Your task to perform on an android device: Go to calendar. Show me events next week Image 0: 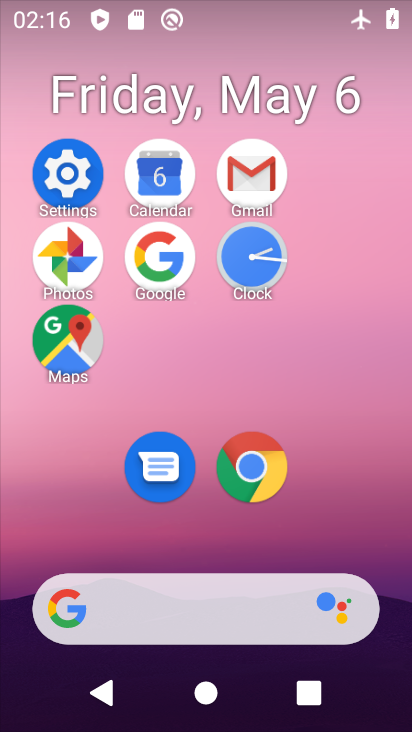
Step 0: drag from (347, 527) to (348, 124)
Your task to perform on an android device: Go to calendar. Show me events next week Image 1: 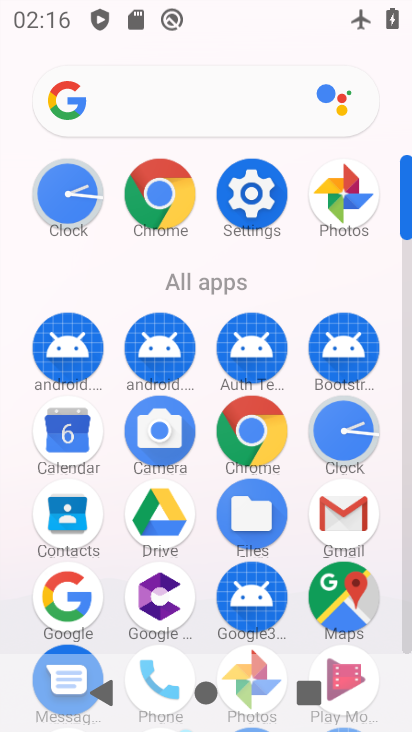
Step 1: click (51, 428)
Your task to perform on an android device: Go to calendar. Show me events next week Image 2: 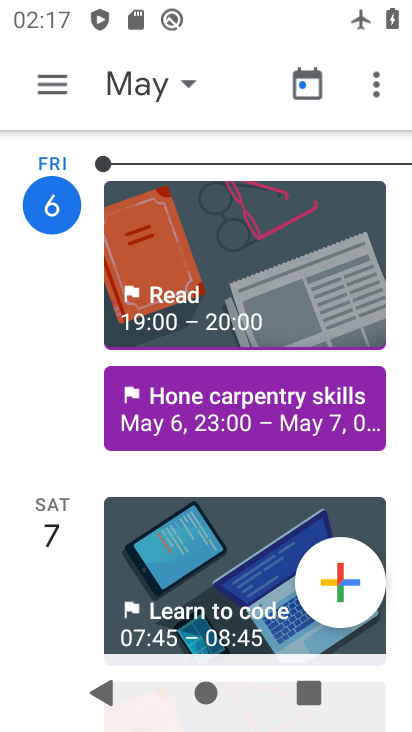
Step 2: click (50, 70)
Your task to perform on an android device: Go to calendar. Show me events next week Image 3: 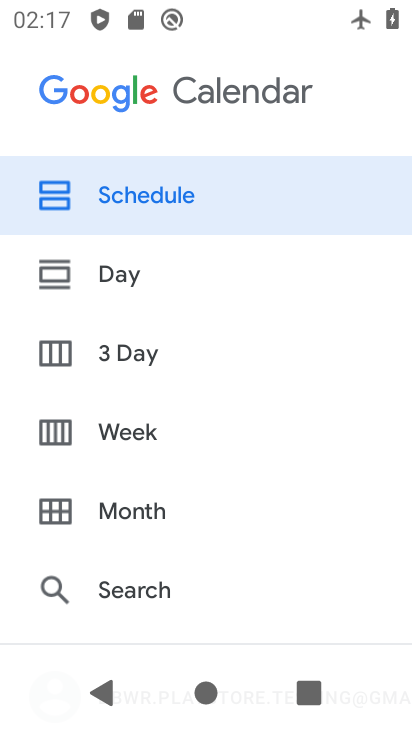
Step 3: click (130, 444)
Your task to perform on an android device: Go to calendar. Show me events next week Image 4: 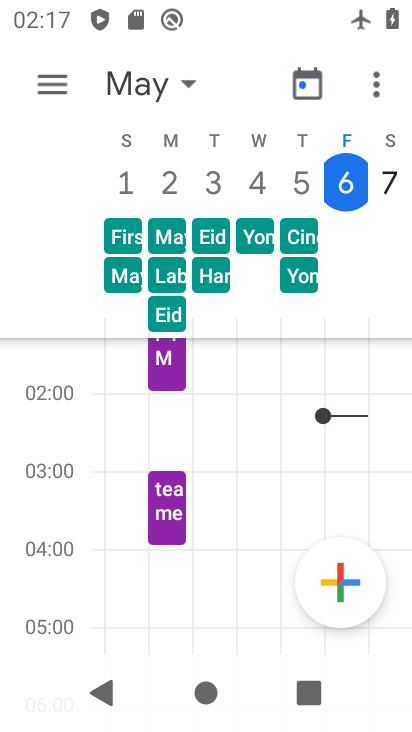
Step 4: task complete